Your task to perform on an android device: Go to Android settings Image 0: 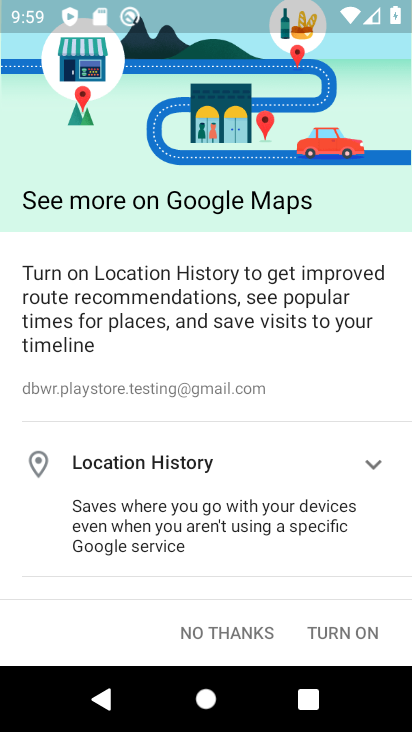
Step 0: press home button
Your task to perform on an android device: Go to Android settings Image 1: 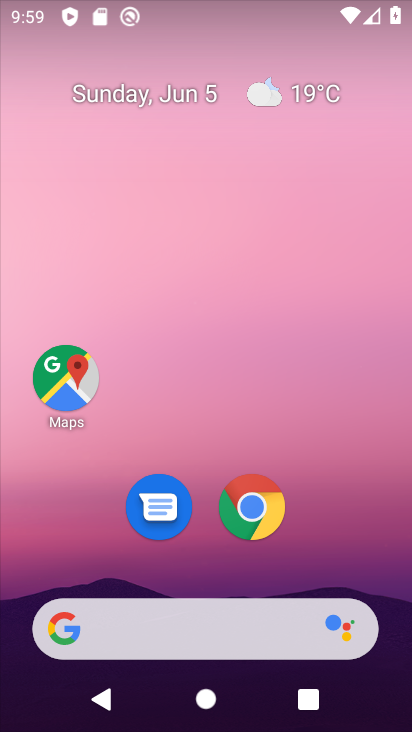
Step 1: drag from (194, 559) to (390, 19)
Your task to perform on an android device: Go to Android settings Image 2: 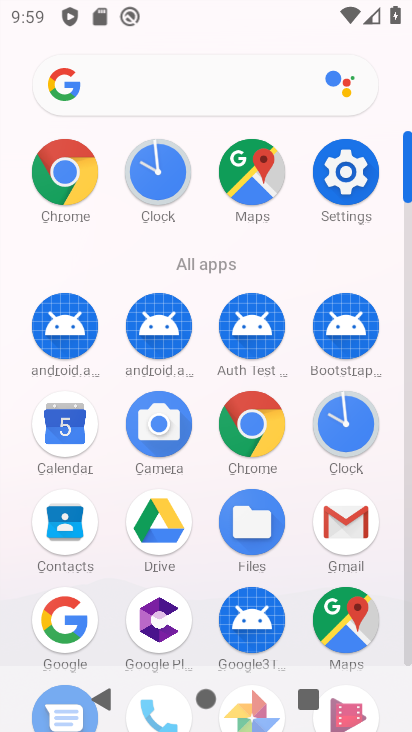
Step 2: click (354, 158)
Your task to perform on an android device: Go to Android settings Image 3: 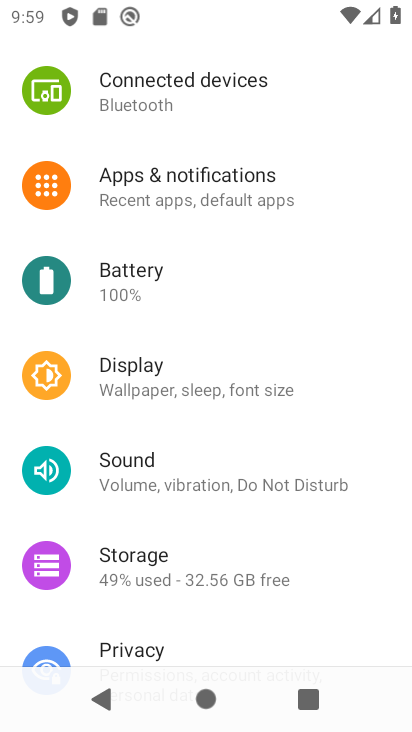
Step 3: task complete